Your task to perform on an android device: turn on data saver in the chrome app Image 0: 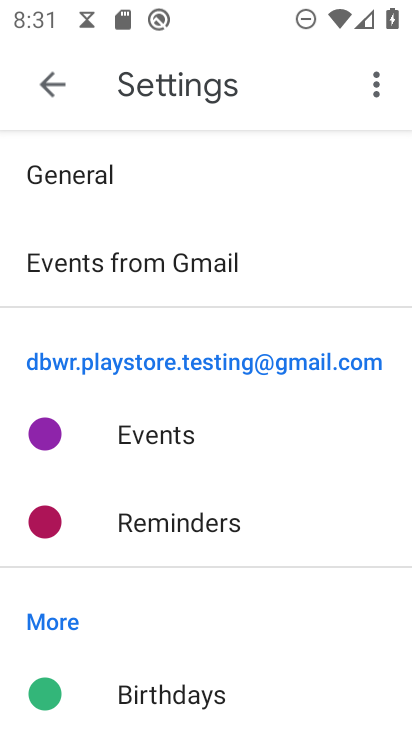
Step 0: press home button
Your task to perform on an android device: turn on data saver in the chrome app Image 1: 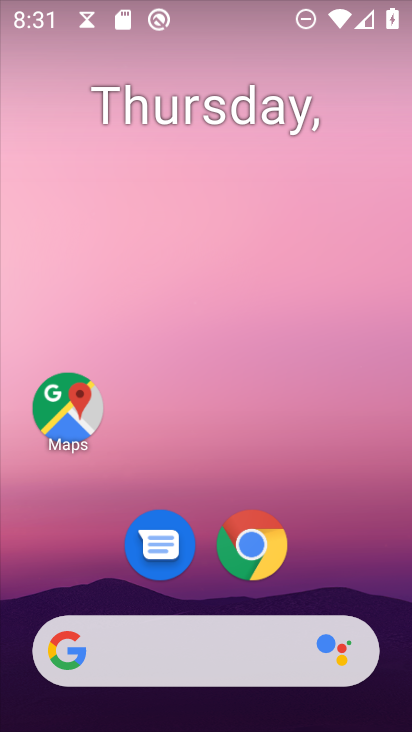
Step 1: click (250, 545)
Your task to perform on an android device: turn on data saver in the chrome app Image 2: 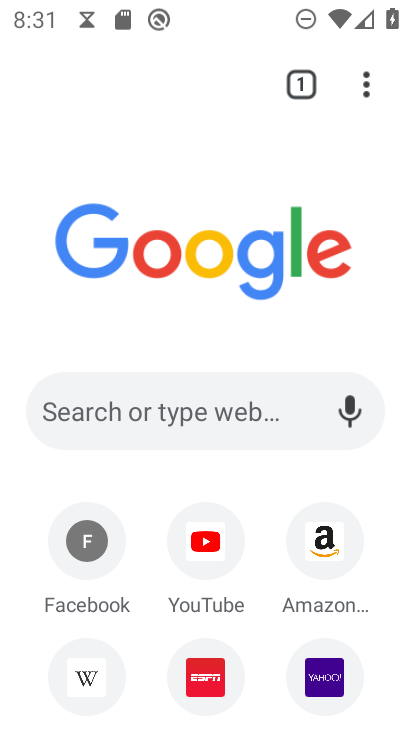
Step 2: click (366, 84)
Your task to perform on an android device: turn on data saver in the chrome app Image 3: 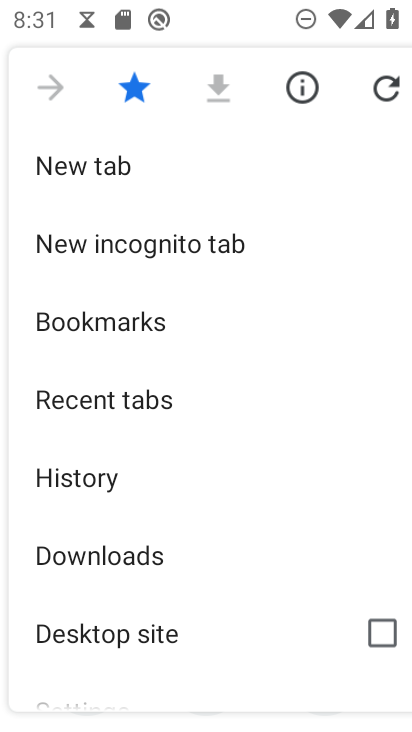
Step 3: drag from (125, 496) to (185, 410)
Your task to perform on an android device: turn on data saver in the chrome app Image 4: 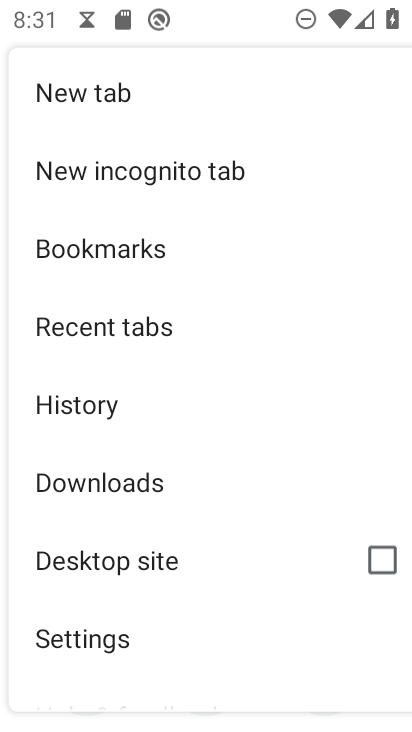
Step 4: drag from (114, 530) to (188, 441)
Your task to perform on an android device: turn on data saver in the chrome app Image 5: 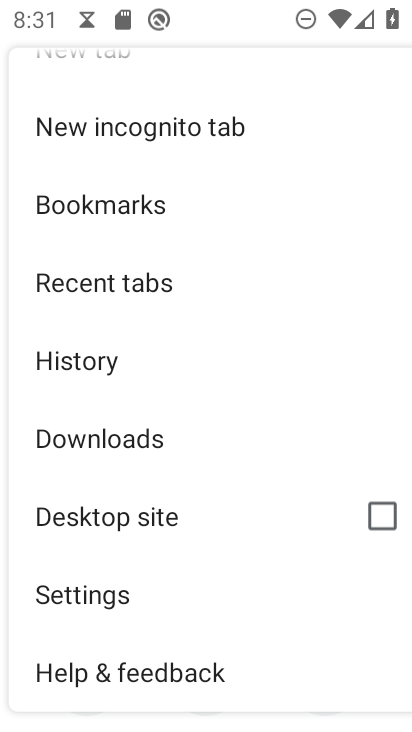
Step 5: click (93, 591)
Your task to perform on an android device: turn on data saver in the chrome app Image 6: 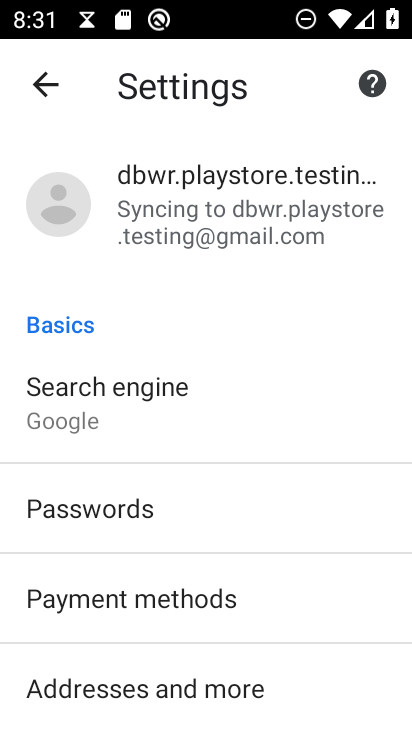
Step 6: drag from (162, 508) to (232, 406)
Your task to perform on an android device: turn on data saver in the chrome app Image 7: 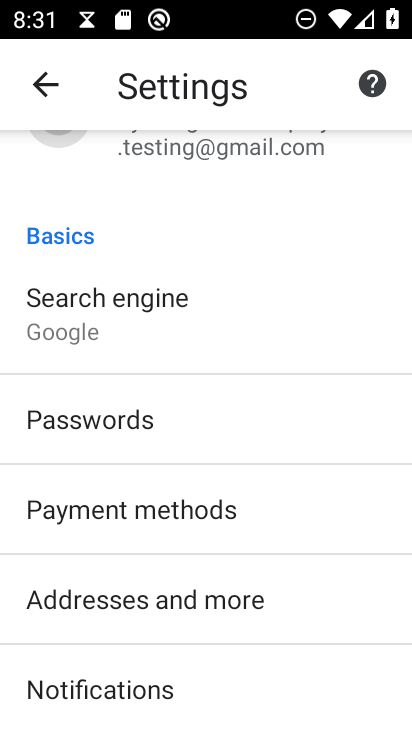
Step 7: drag from (161, 541) to (231, 446)
Your task to perform on an android device: turn on data saver in the chrome app Image 8: 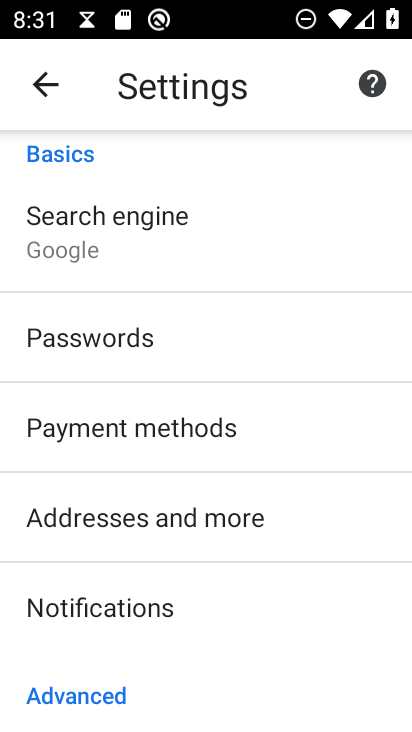
Step 8: drag from (148, 582) to (229, 480)
Your task to perform on an android device: turn on data saver in the chrome app Image 9: 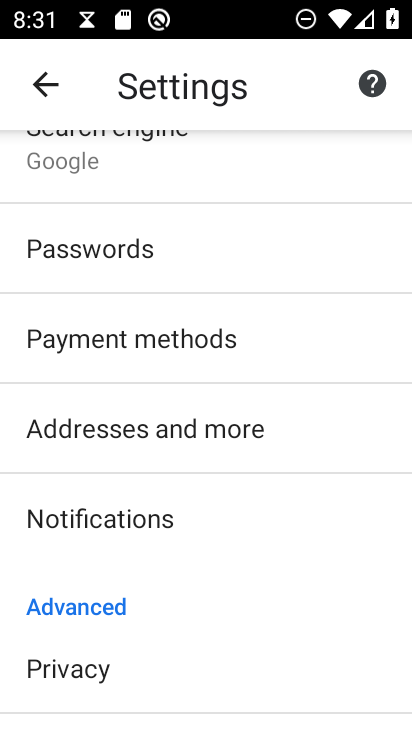
Step 9: drag from (150, 579) to (229, 465)
Your task to perform on an android device: turn on data saver in the chrome app Image 10: 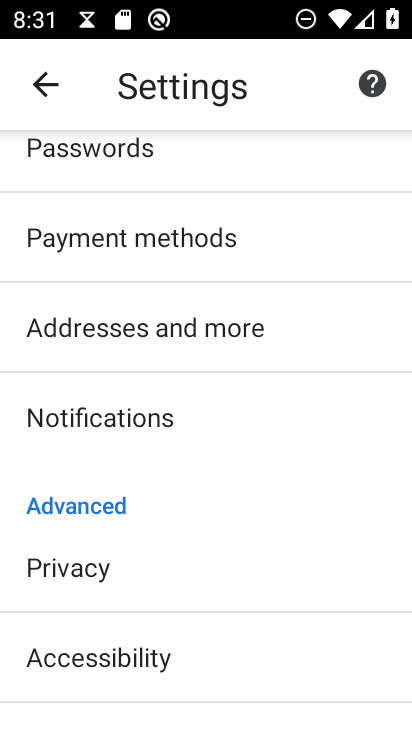
Step 10: drag from (129, 619) to (208, 509)
Your task to perform on an android device: turn on data saver in the chrome app Image 11: 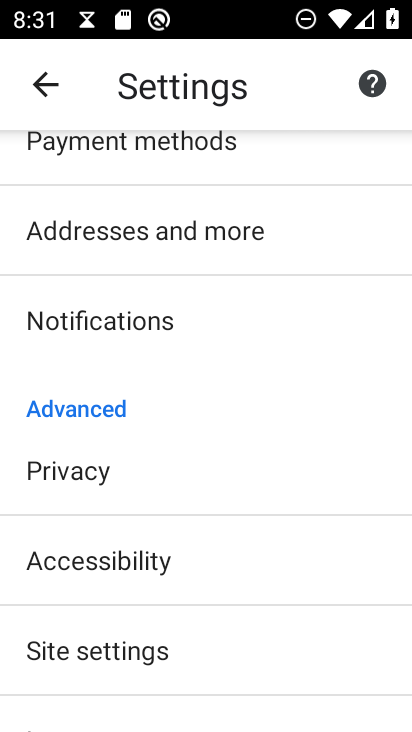
Step 11: drag from (135, 600) to (221, 495)
Your task to perform on an android device: turn on data saver in the chrome app Image 12: 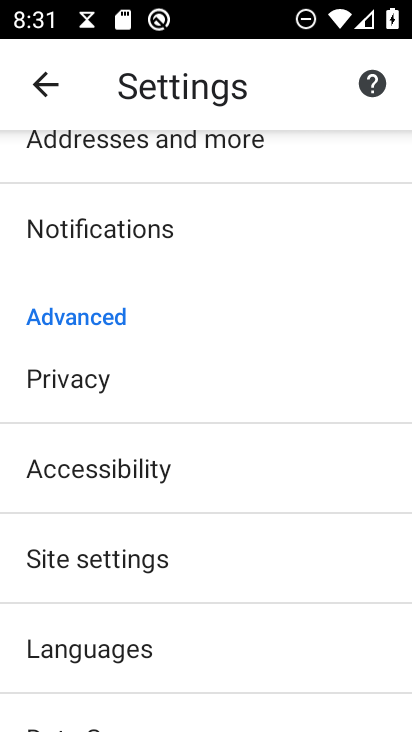
Step 12: drag from (134, 611) to (248, 490)
Your task to perform on an android device: turn on data saver in the chrome app Image 13: 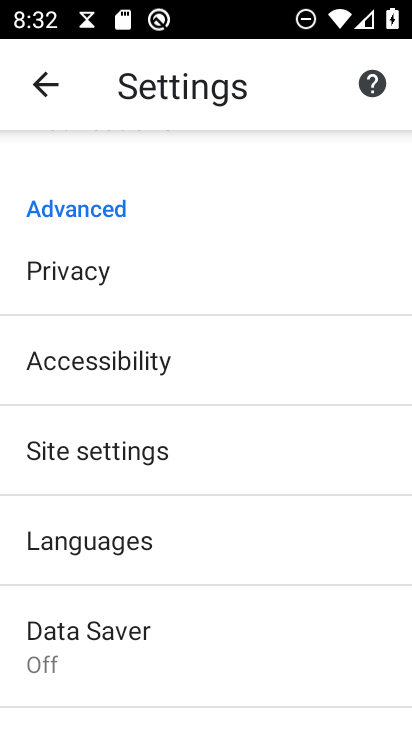
Step 13: click (91, 629)
Your task to perform on an android device: turn on data saver in the chrome app Image 14: 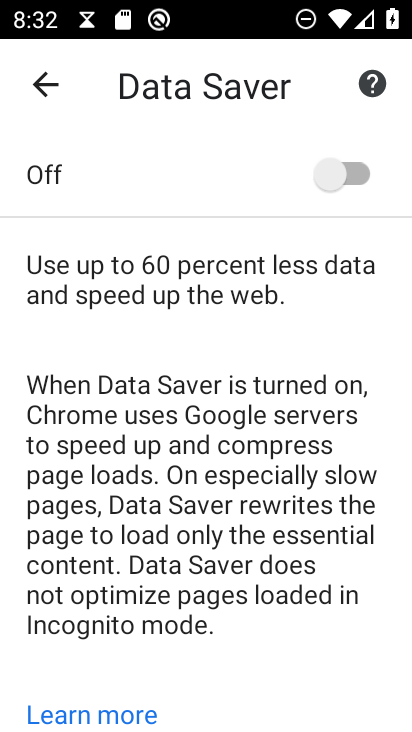
Step 14: click (353, 172)
Your task to perform on an android device: turn on data saver in the chrome app Image 15: 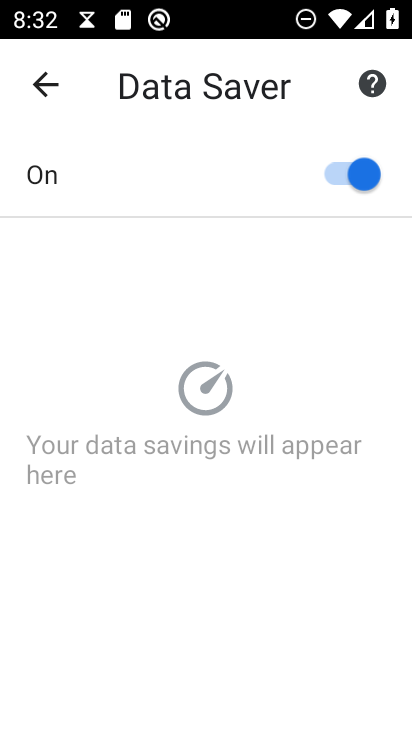
Step 15: task complete